Your task to perform on an android device: Go to sound settings Image 0: 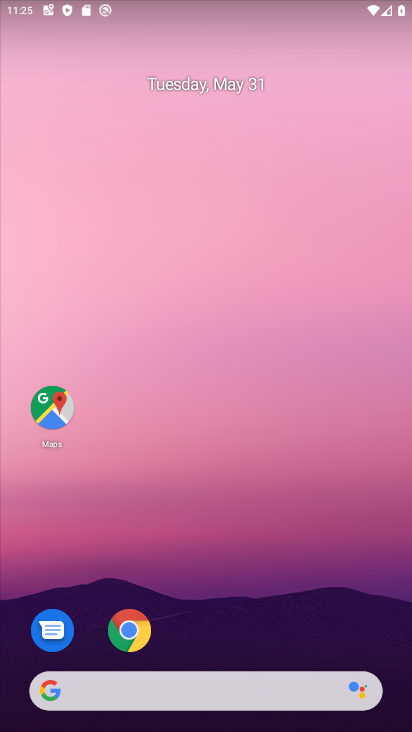
Step 0: drag from (277, 572) to (281, 190)
Your task to perform on an android device: Go to sound settings Image 1: 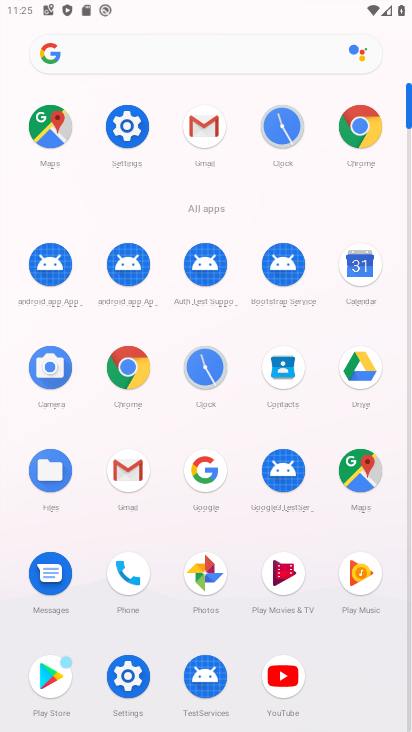
Step 1: click (127, 124)
Your task to perform on an android device: Go to sound settings Image 2: 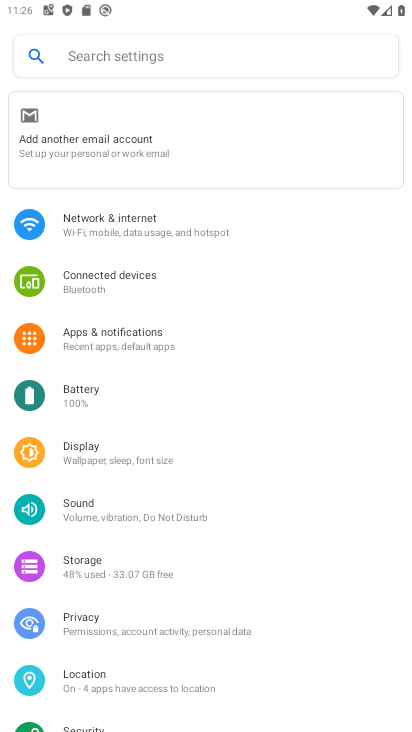
Step 2: click (112, 501)
Your task to perform on an android device: Go to sound settings Image 3: 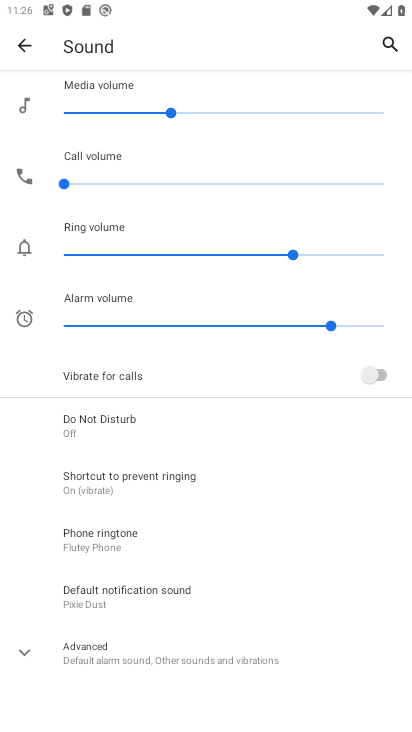
Step 3: task complete